Your task to perform on an android device: open the mobile data screen to see how much data has been used Image 0: 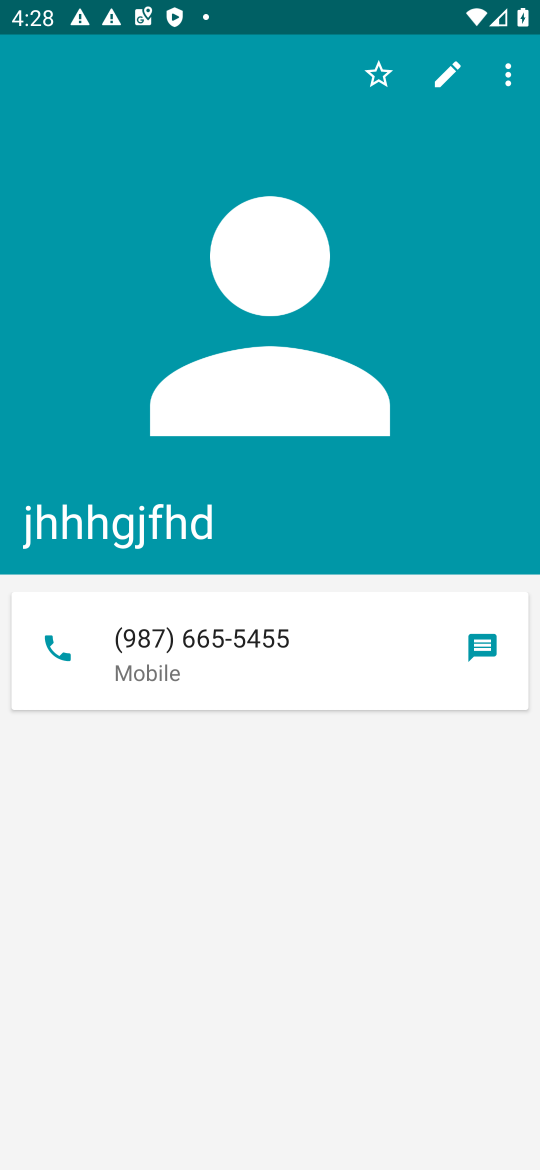
Step 0: press home button
Your task to perform on an android device: open the mobile data screen to see how much data has been used Image 1: 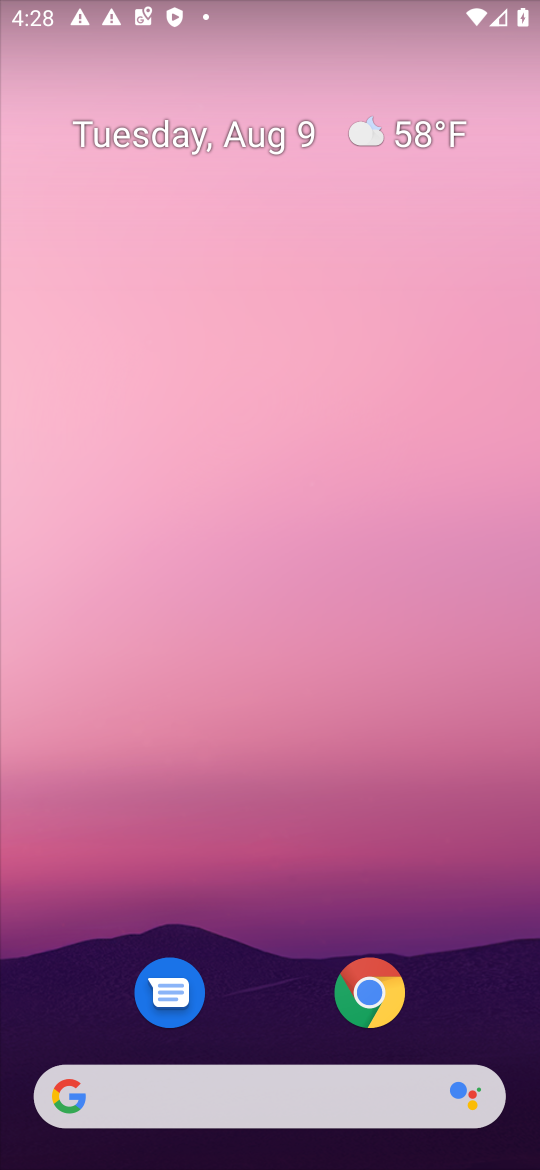
Step 1: drag from (381, 829) to (403, 3)
Your task to perform on an android device: open the mobile data screen to see how much data has been used Image 2: 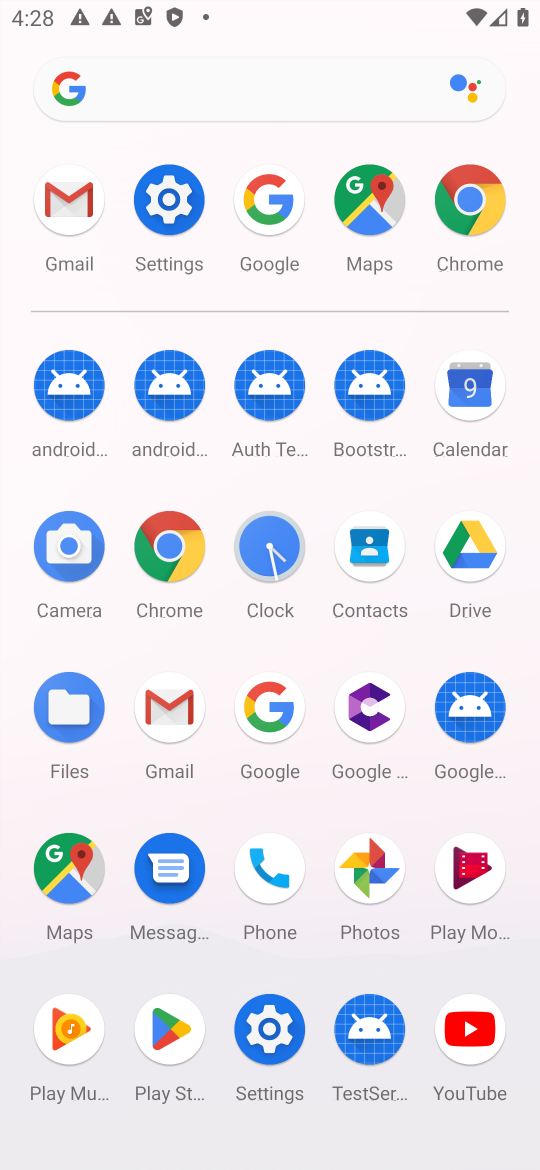
Step 2: click (134, 186)
Your task to perform on an android device: open the mobile data screen to see how much data has been used Image 3: 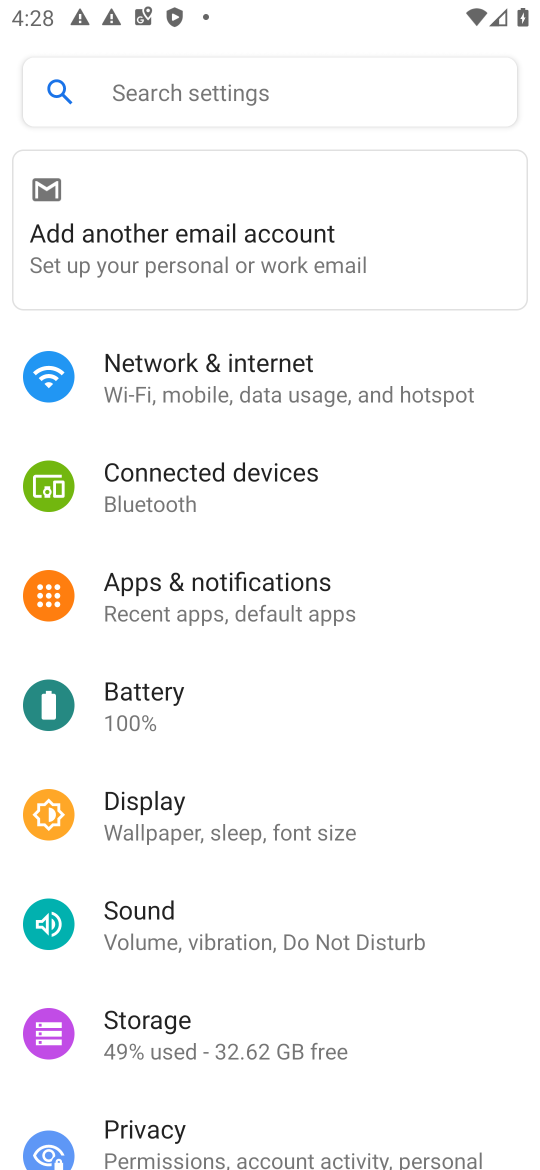
Step 3: click (231, 409)
Your task to perform on an android device: open the mobile data screen to see how much data has been used Image 4: 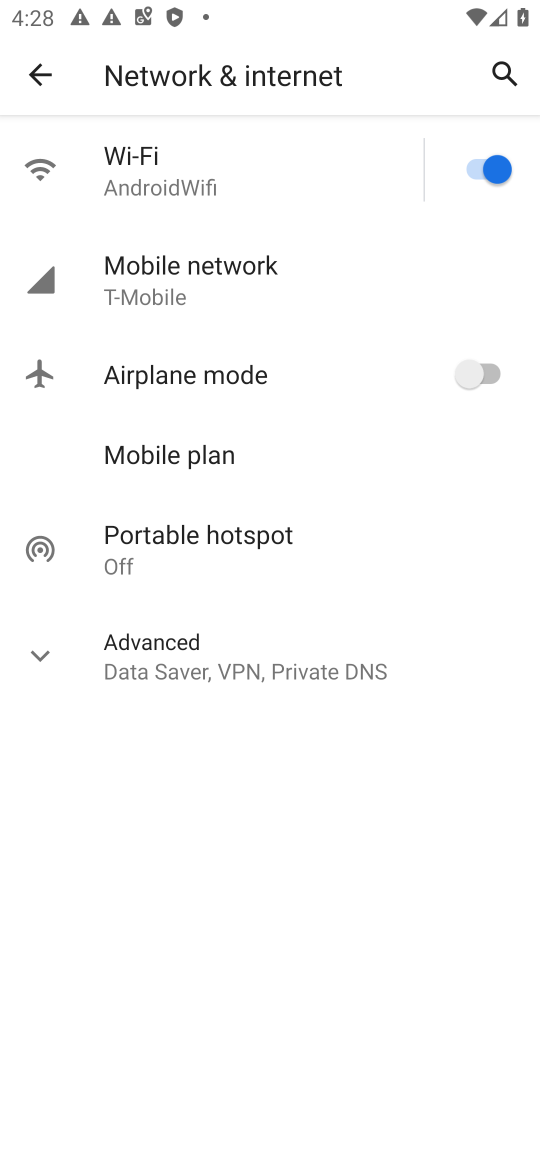
Step 4: click (174, 280)
Your task to perform on an android device: open the mobile data screen to see how much data has been used Image 5: 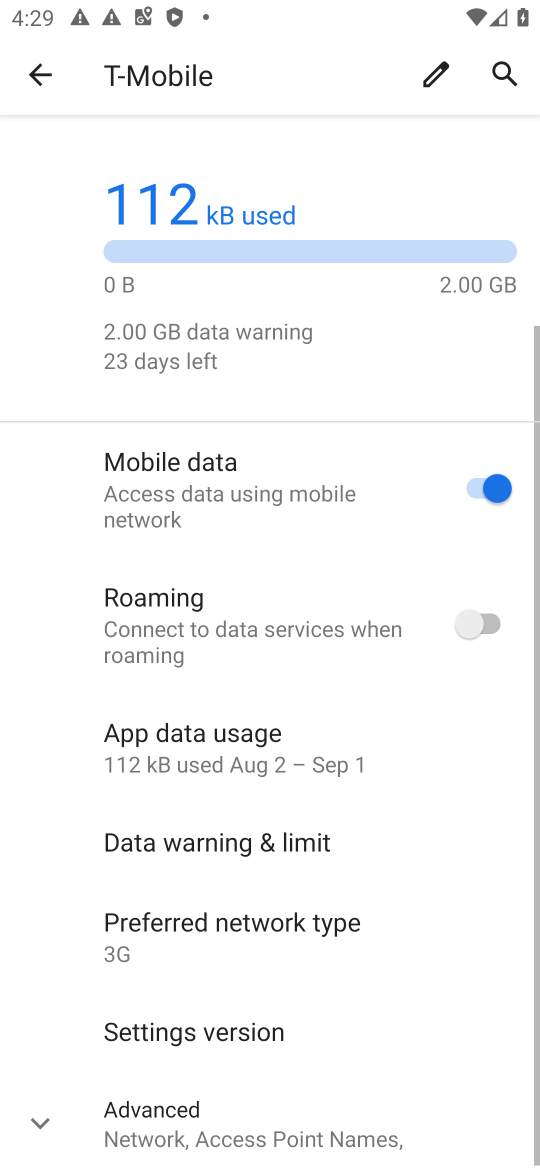
Step 5: task complete